Your task to perform on an android device: toggle improve location accuracy Image 0: 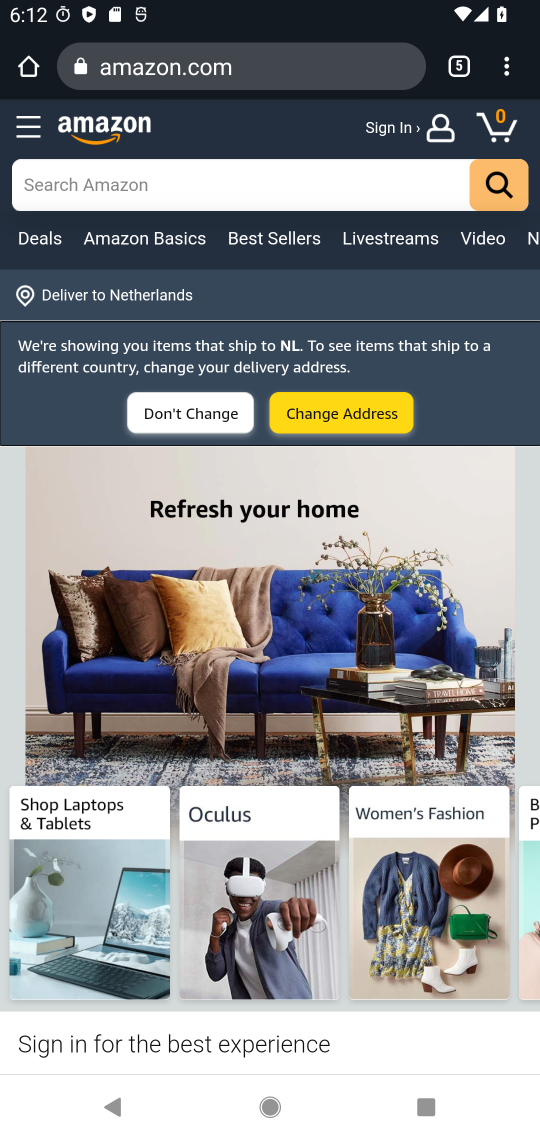
Step 0: click (510, 69)
Your task to perform on an android device: toggle improve location accuracy Image 1: 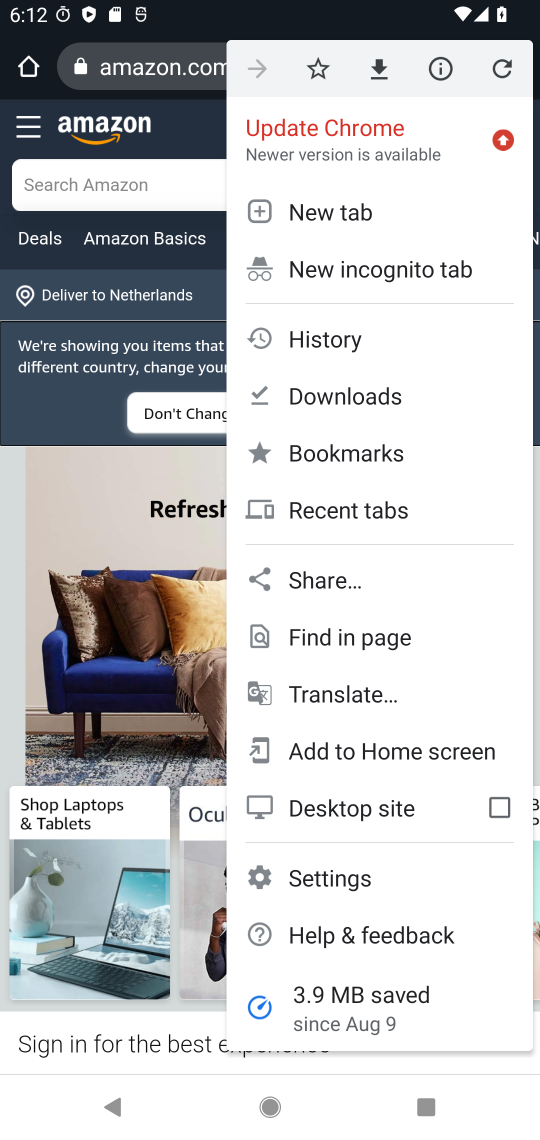
Step 1: click (298, 879)
Your task to perform on an android device: toggle improve location accuracy Image 2: 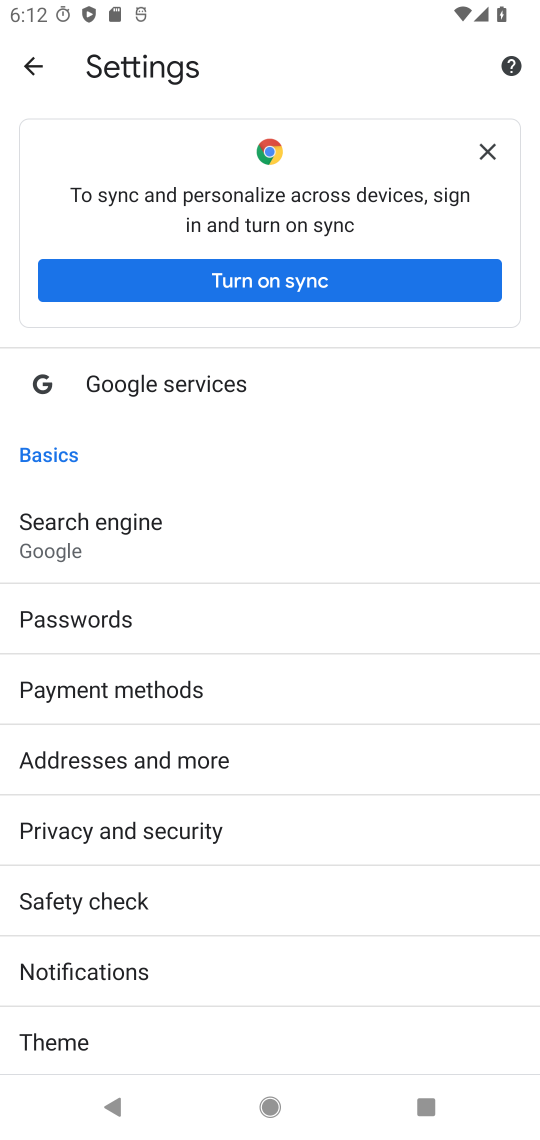
Step 2: drag from (187, 954) to (219, 519)
Your task to perform on an android device: toggle improve location accuracy Image 3: 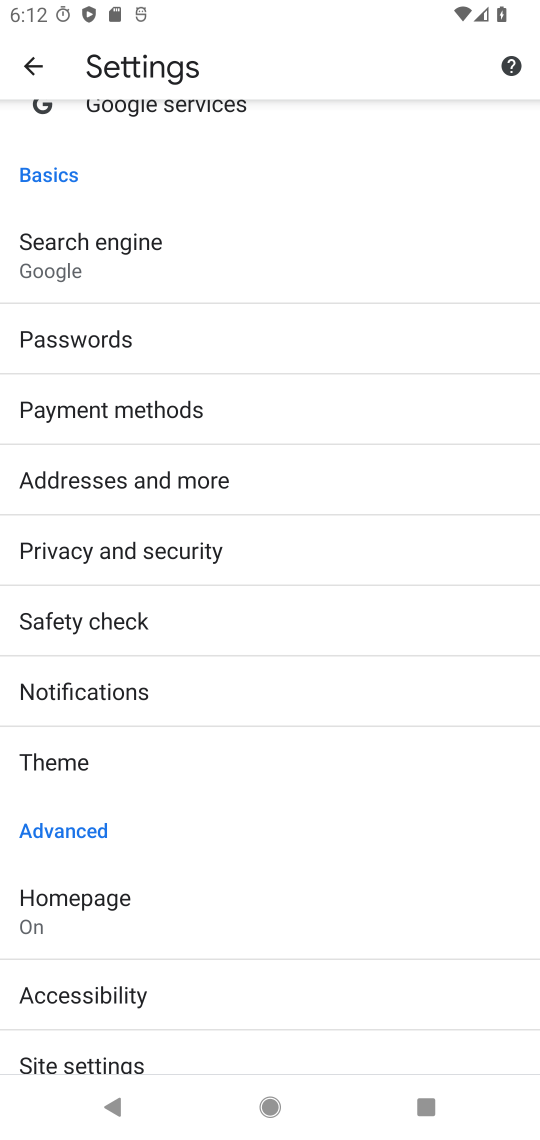
Step 3: drag from (177, 893) to (210, 487)
Your task to perform on an android device: toggle improve location accuracy Image 4: 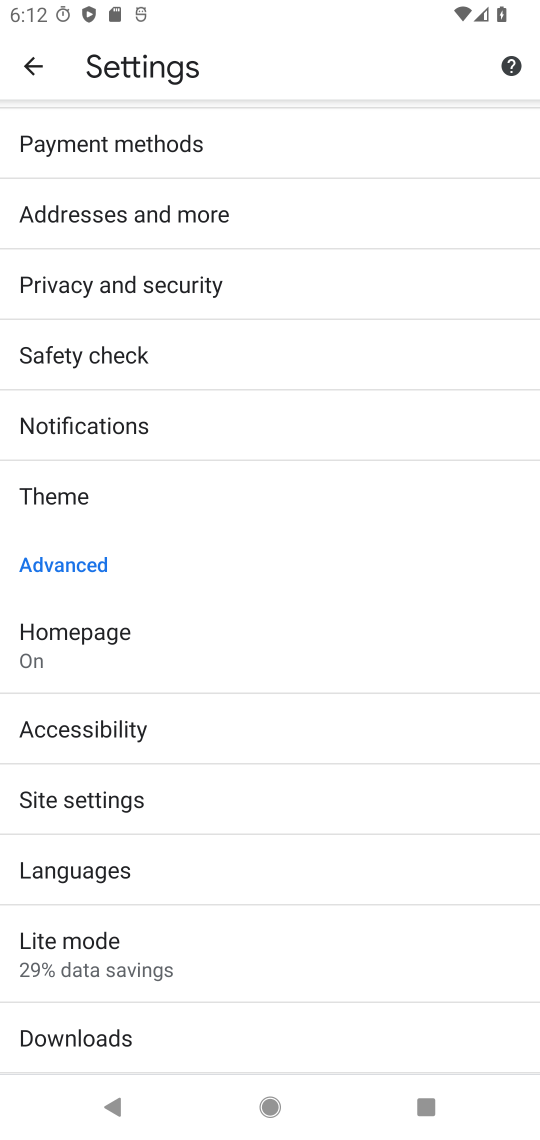
Step 4: click (163, 807)
Your task to perform on an android device: toggle improve location accuracy Image 5: 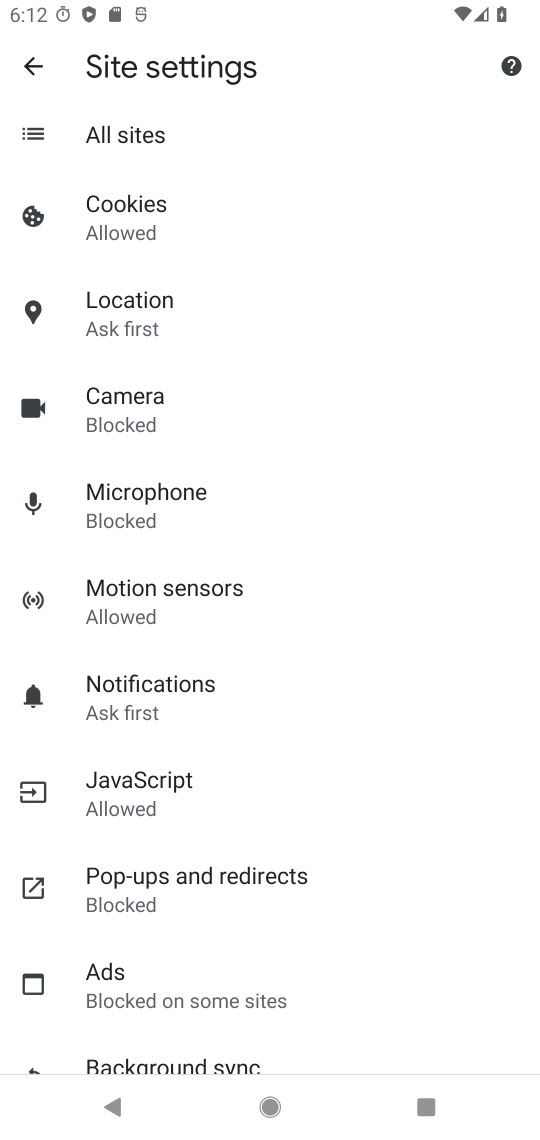
Step 5: drag from (221, 903) to (225, 404)
Your task to perform on an android device: toggle improve location accuracy Image 6: 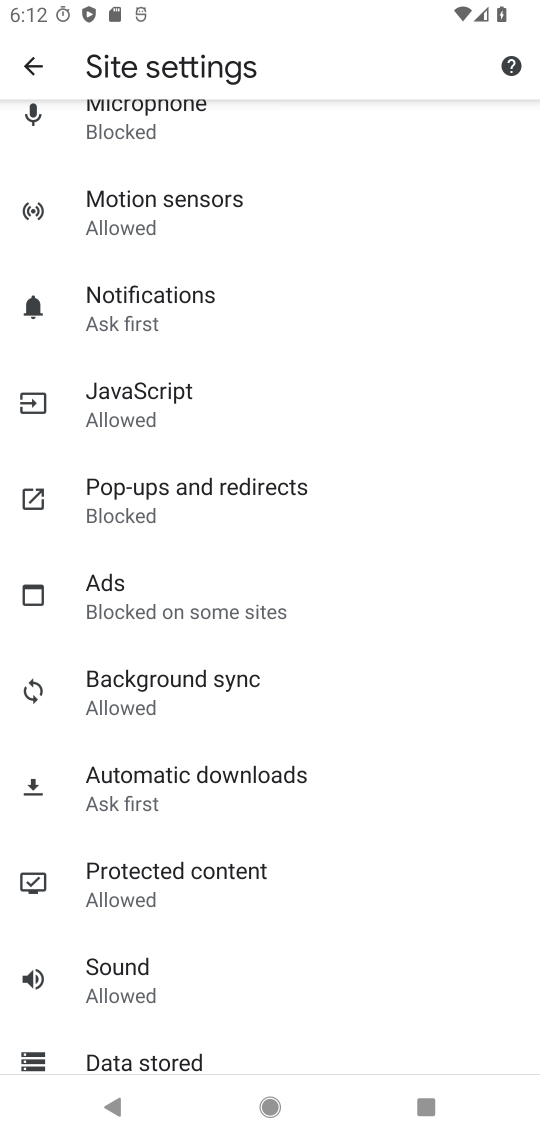
Step 6: drag from (280, 861) to (316, 319)
Your task to perform on an android device: toggle improve location accuracy Image 7: 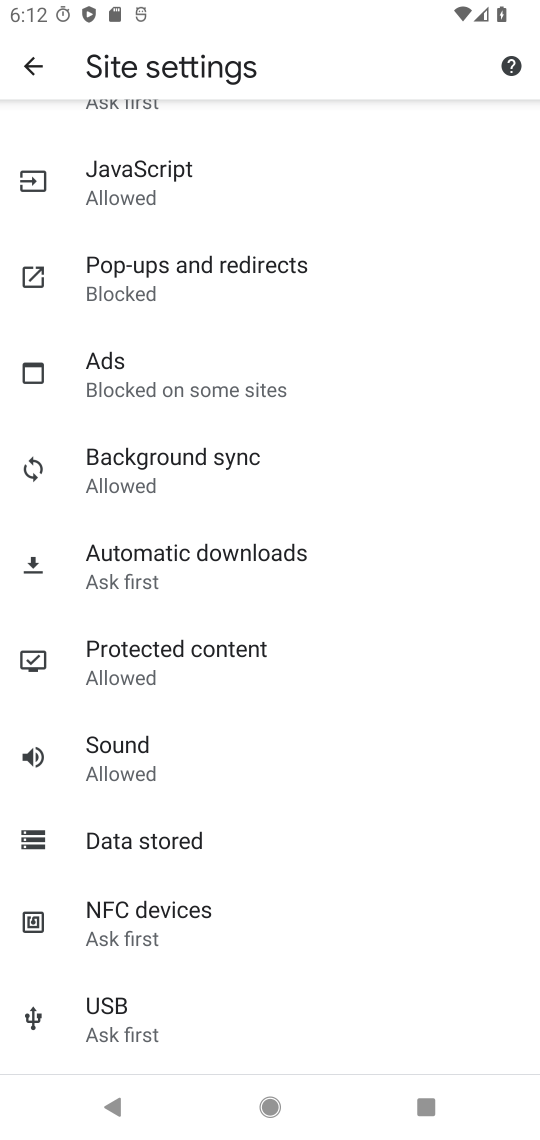
Step 7: drag from (288, 863) to (295, 139)
Your task to perform on an android device: toggle improve location accuracy Image 8: 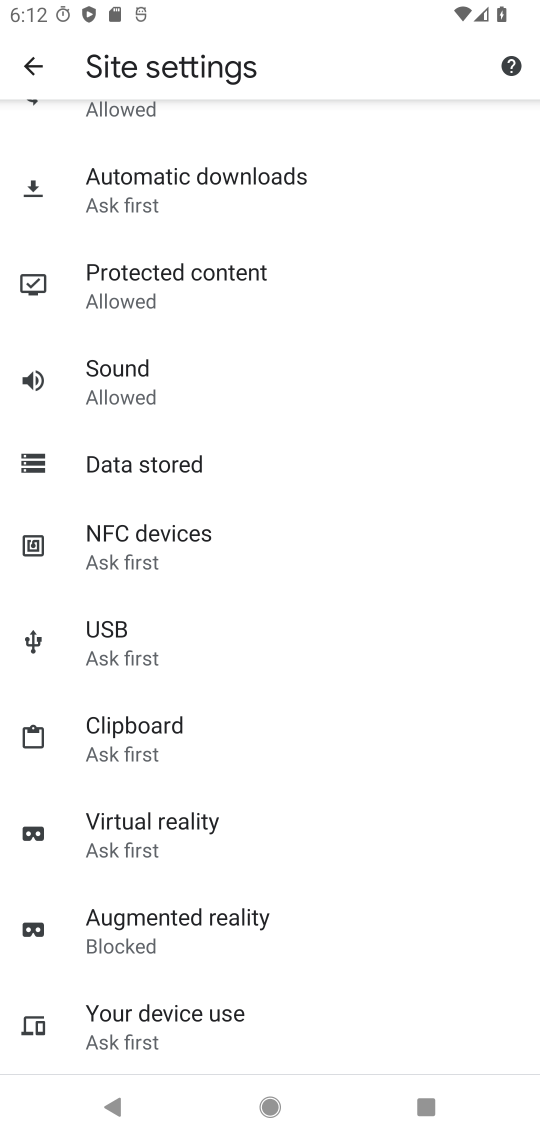
Step 8: drag from (292, 406) to (266, 797)
Your task to perform on an android device: toggle improve location accuracy Image 9: 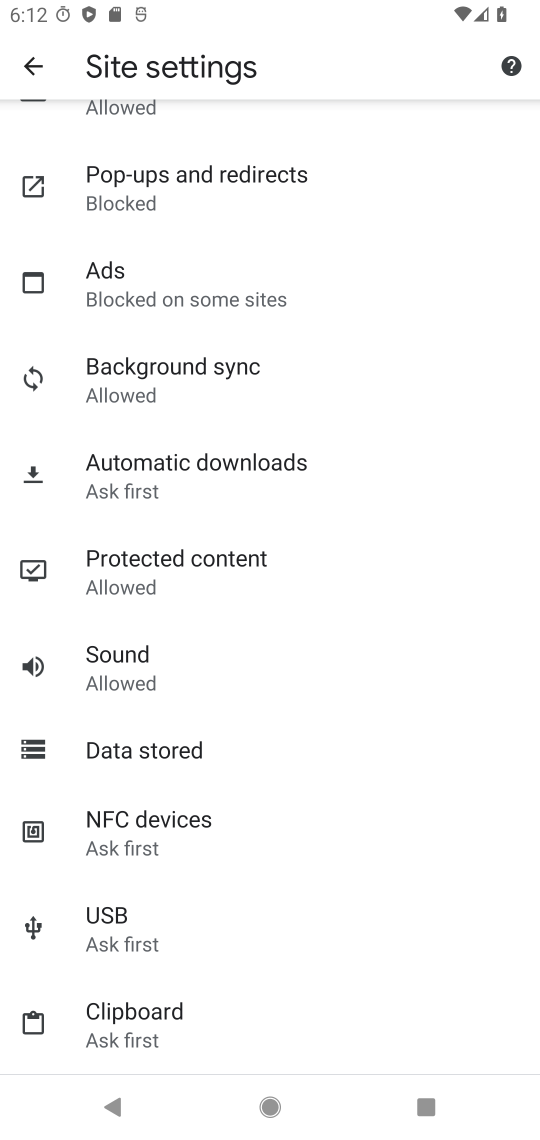
Step 9: drag from (247, 563) to (259, 948)
Your task to perform on an android device: toggle improve location accuracy Image 10: 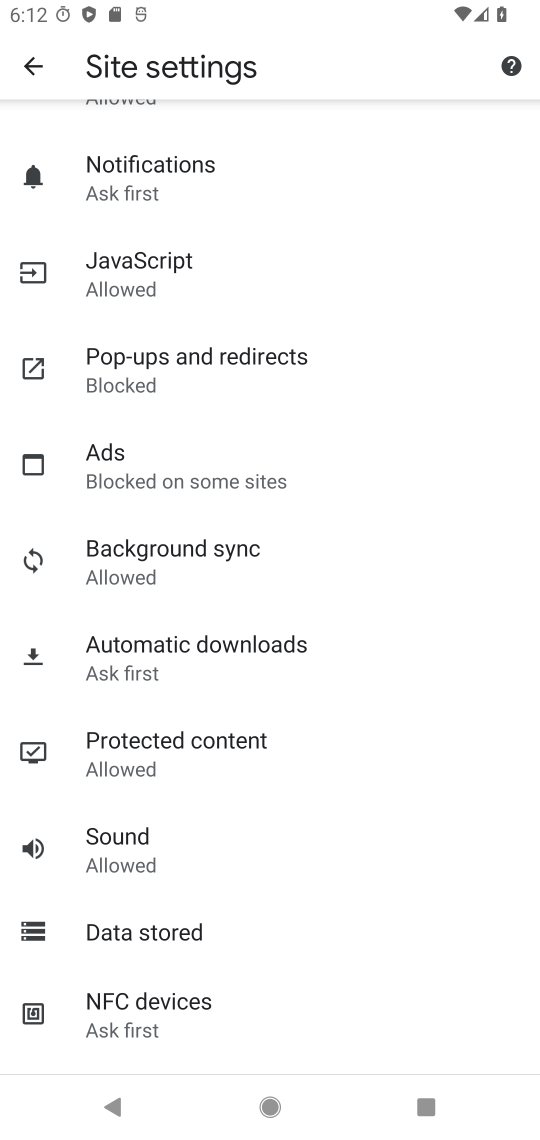
Step 10: drag from (225, 376) to (261, 828)
Your task to perform on an android device: toggle improve location accuracy Image 11: 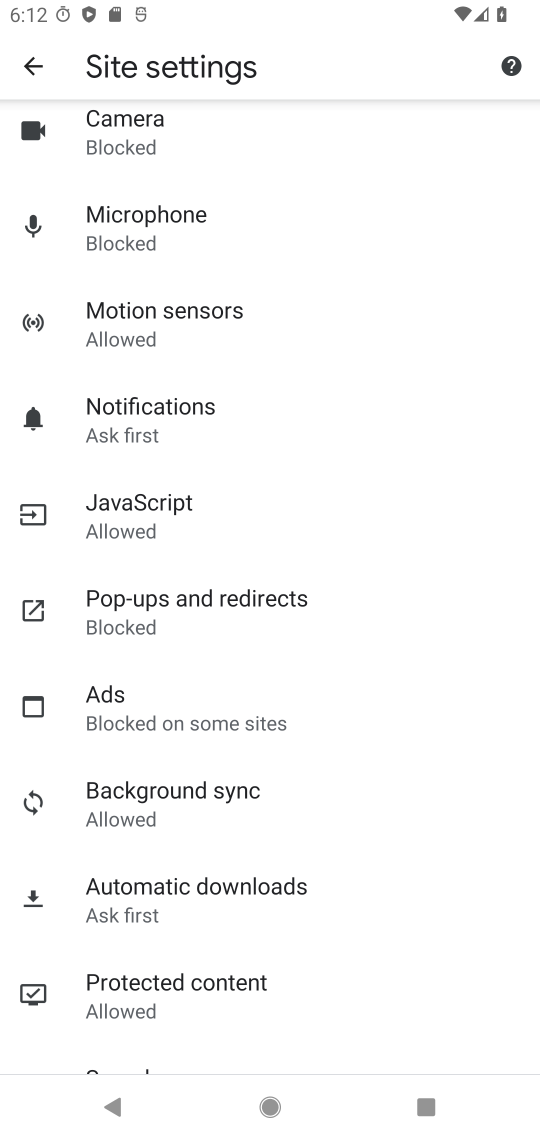
Step 11: drag from (191, 289) to (216, 890)
Your task to perform on an android device: toggle improve location accuracy Image 12: 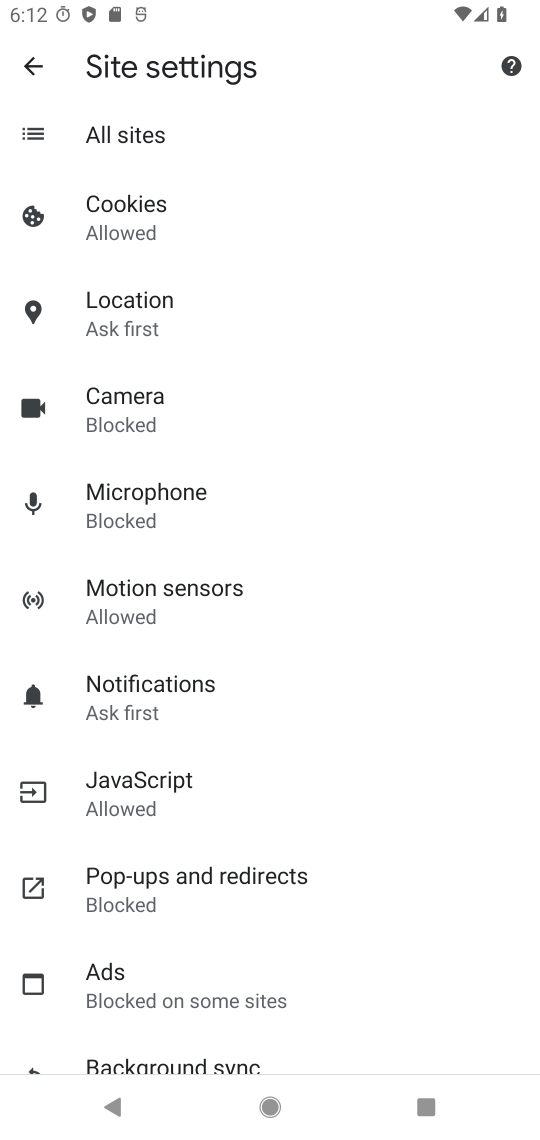
Step 12: drag from (243, 271) to (271, 408)
Your task to perform on an android device: toggle improve location accuracy Image 13: 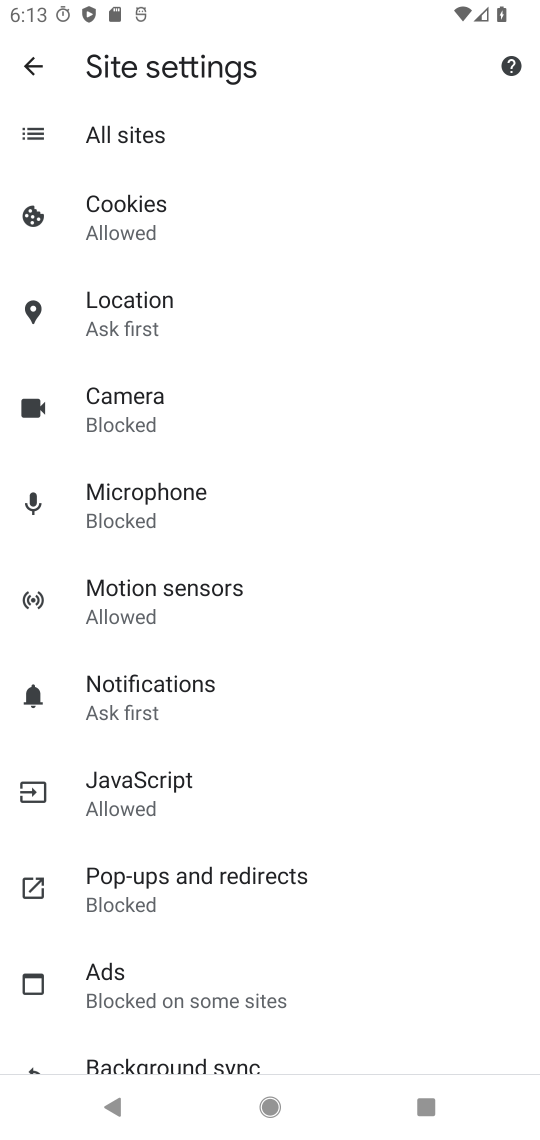
Step 13: click (168, 323)
Your task to perform on an android device: toggle improve location accuracy Image 14: 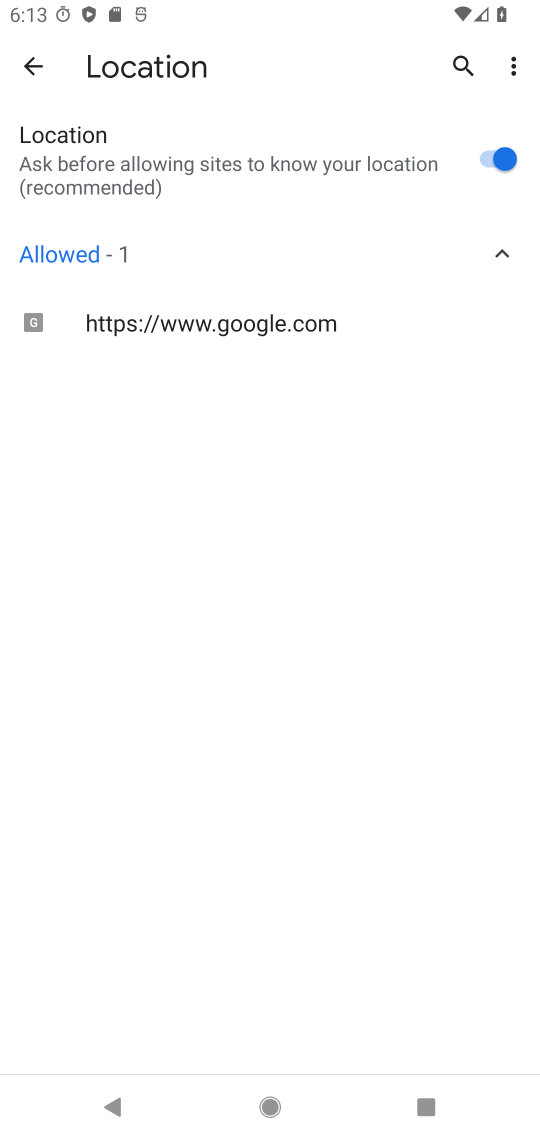
Step 14: press home button
Your task to perform on an android device: toggle improve location accuracy Image 15: 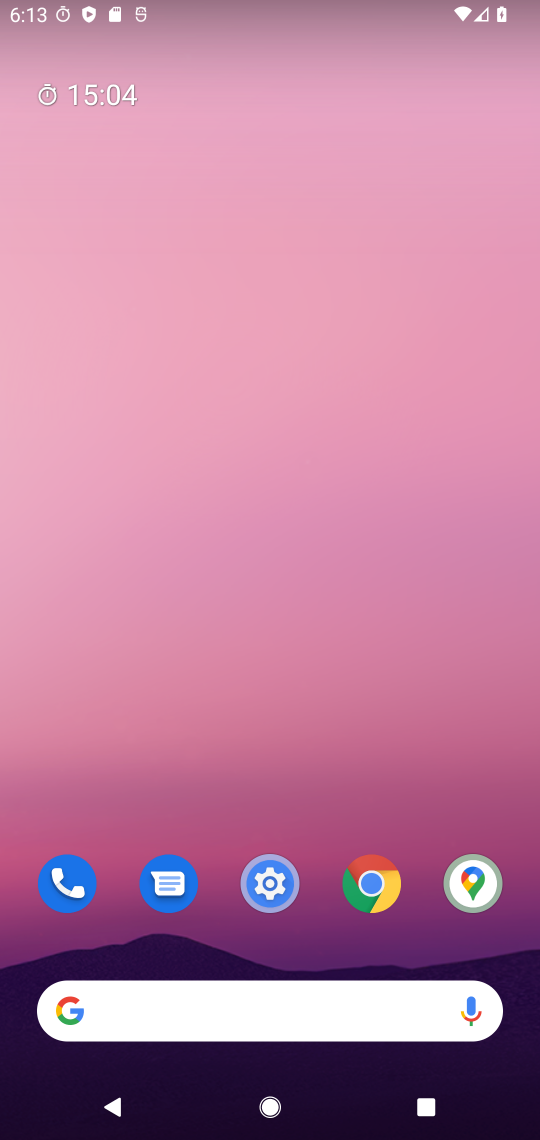
Step 15: drag from (231, 778) to (261, 99)
Your task to perform on an android device: toggle improve location accuracy Image 16: 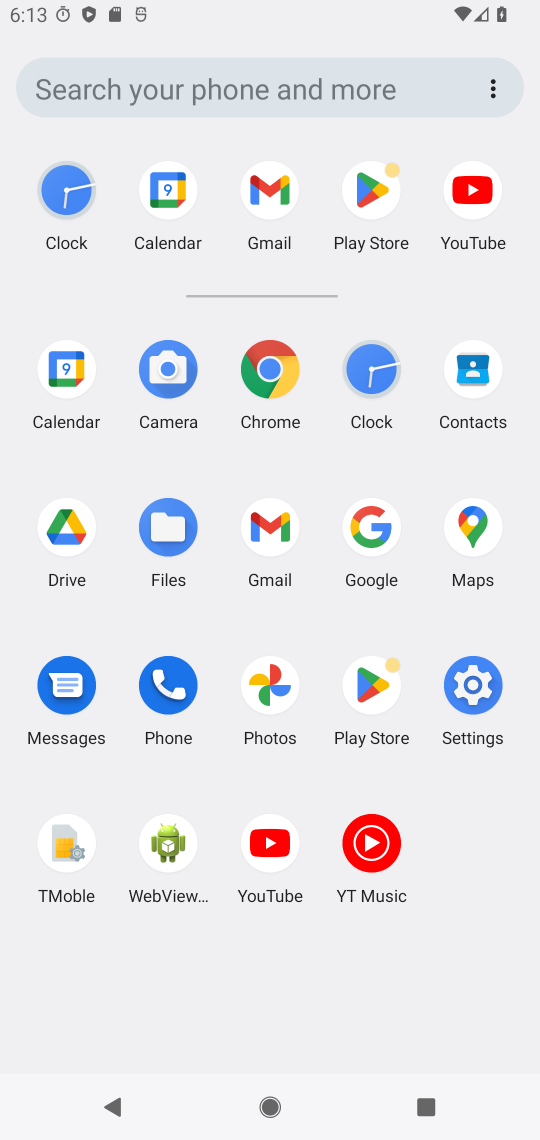
Step 16: click (459, 680)
Your task to perform on an android device: toggle improve location accuracy Image 17: 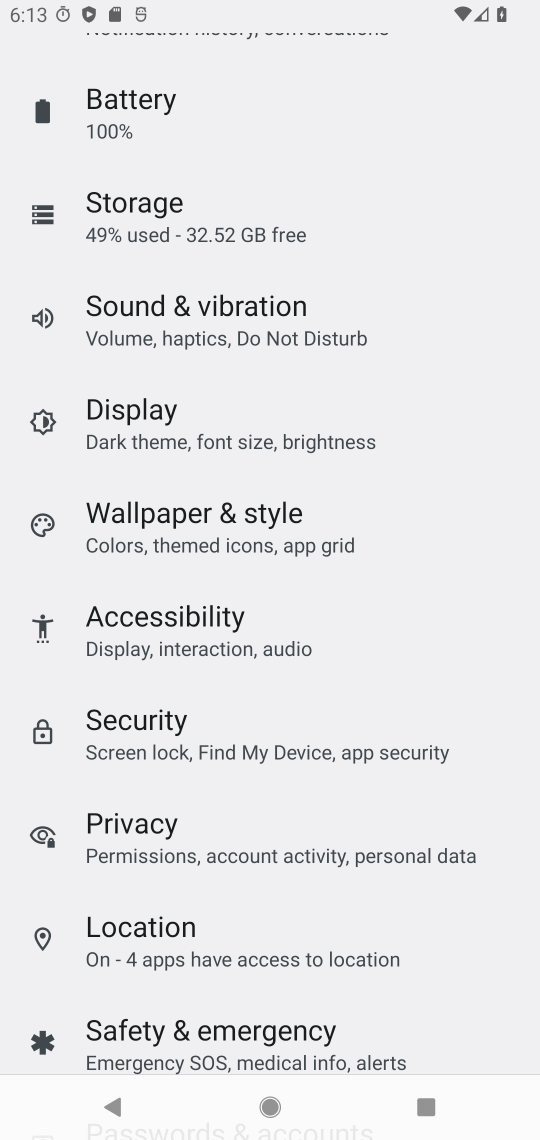
Step 17: click (194, 935)
Your task to perform on an android device: toggle improve location accuracy Image 18: 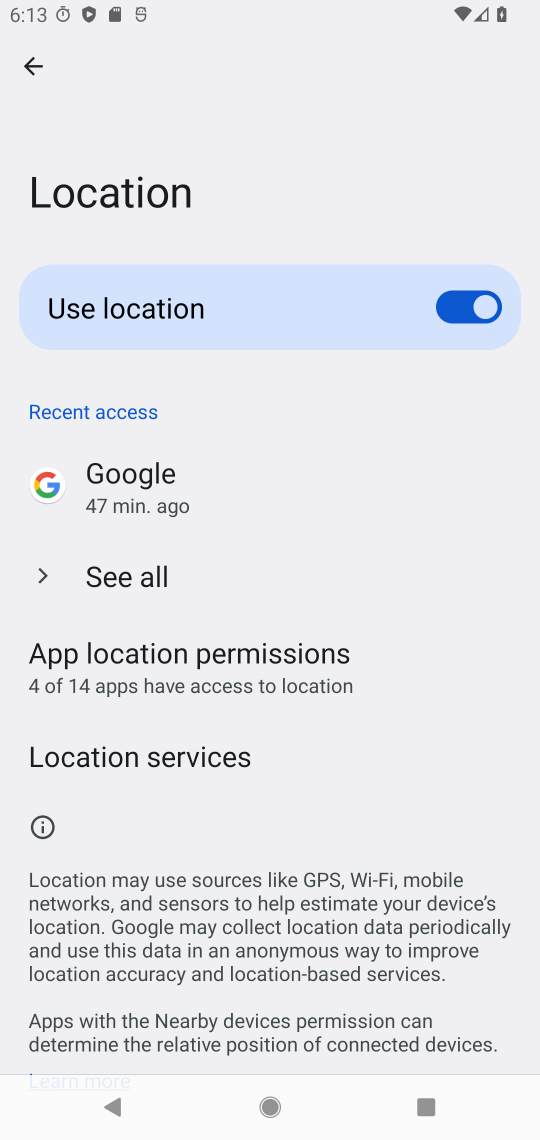
Step 18: drag from (256, 844) to (290, 501)
Your task to perform on an android device: toggle improve location accuracy Image 19: 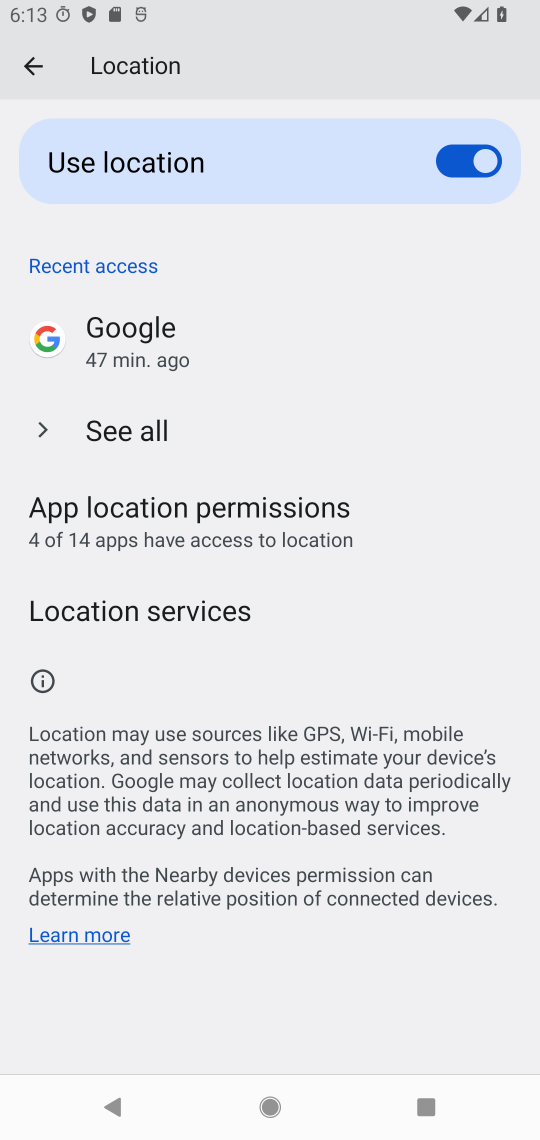
Step 19: click (232, 621)
Your task to perform on an android device: toggle improve location accuracy Image 20: 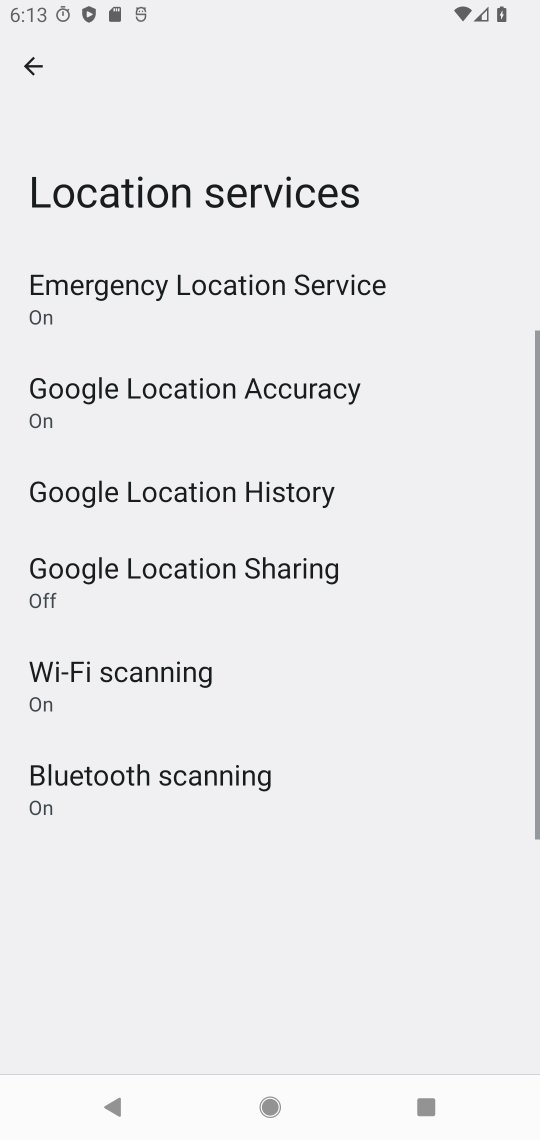
Step 20: click (282, 408)
Your task to perform on an android device: toggle improve location accuracy Image 21: 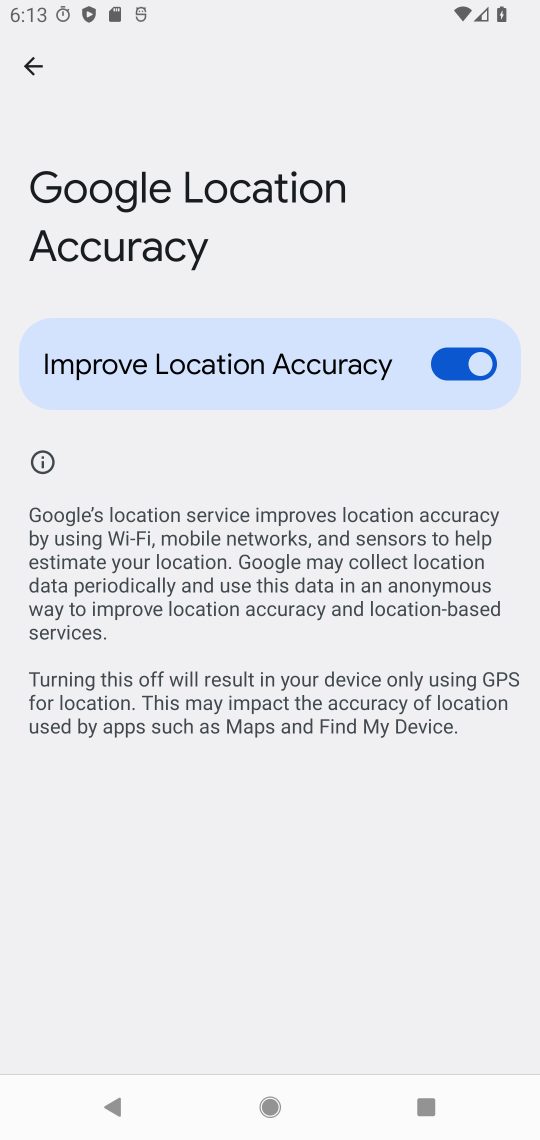
Step 21: click (430, 371)
Your task to perform on an android device: toggle improve location accuracy Image 22: 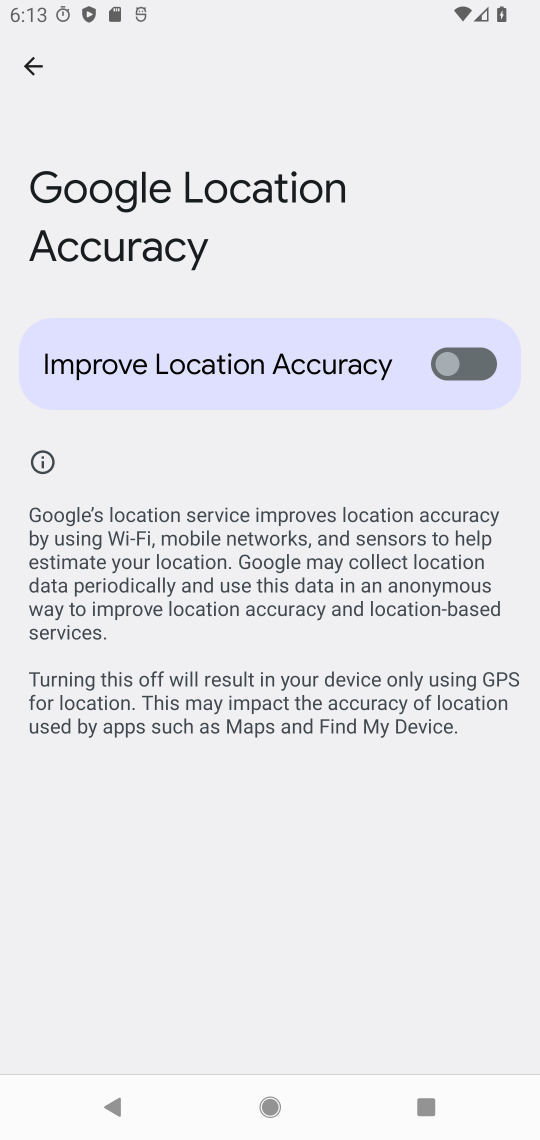
Step 22: task complete